Your task to perform on an android device: turn on javascript in the chrome app Image 0: 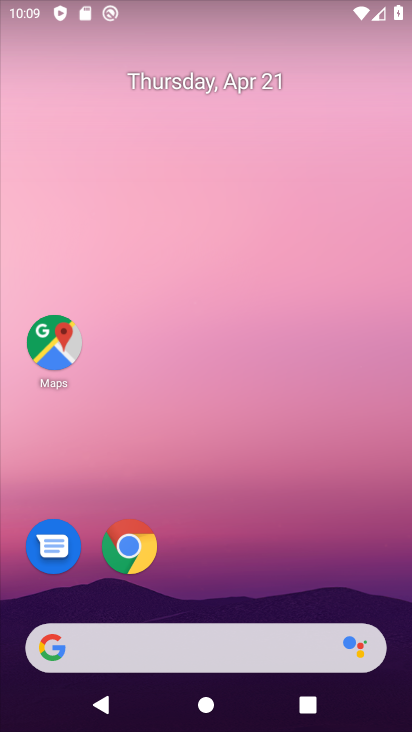
Step 0: drag from (180, 671) to (171, 70)
Your task to perform on an android device: turn on javascript in the chrome app Image 1: 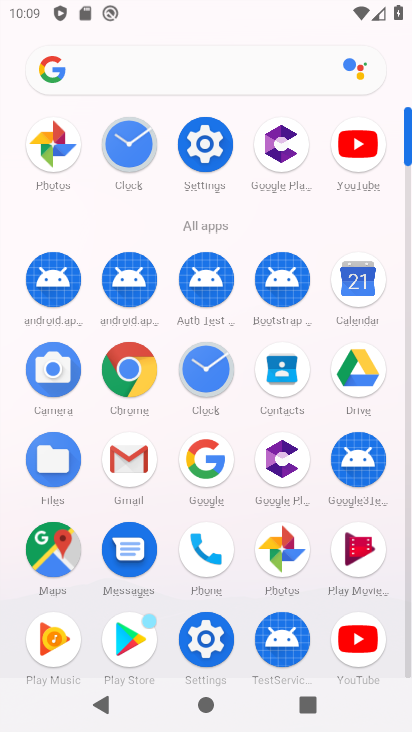
Step 1: click (132, 364)
Your task to perform on an android device: turn on javascript in the chrome app Image 2: 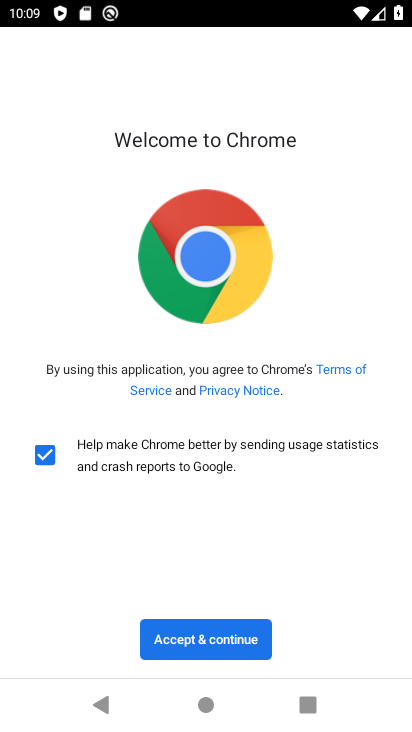
Step 2: click (211, 628)
Your task to perform on an android device: turn on javascript in the chrome app Image 3: 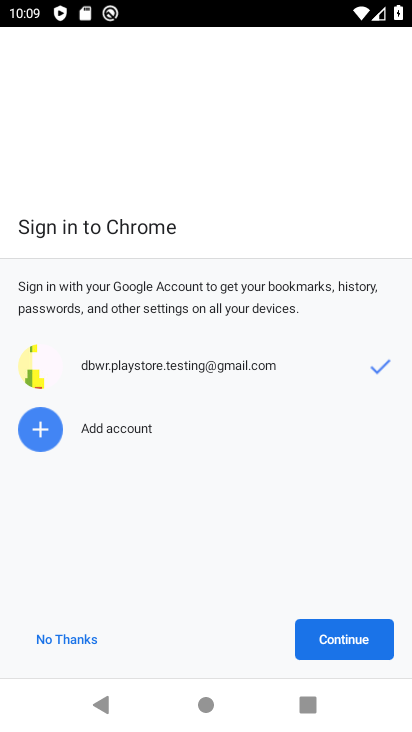
Step 3: click (320, 634)
Your task to perform on an android device: turn on javascript in the chrome app Image 4: 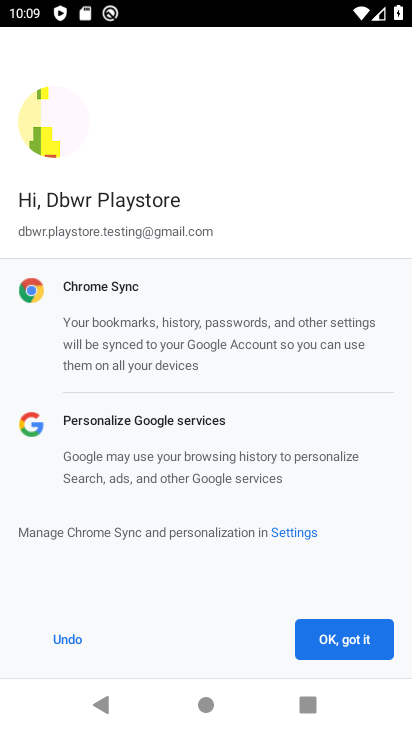
Step 4: click (320, 634)
Your task to perform on an android device: turn on javascript in the chrome app Image 5: 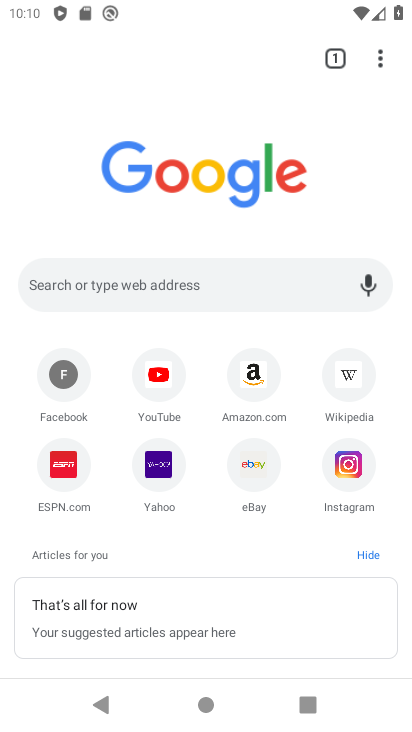
Step 5: click (383, 58)
Your task to perform on an android device: turn on javascript in the chrome app Image 6: 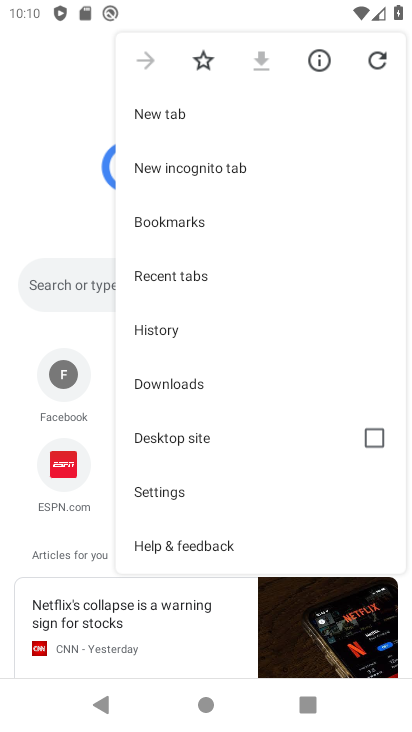
Step 6: click (184, 491)
Your task to perform on an android device: turn on javascript in the chrome app Image 7: 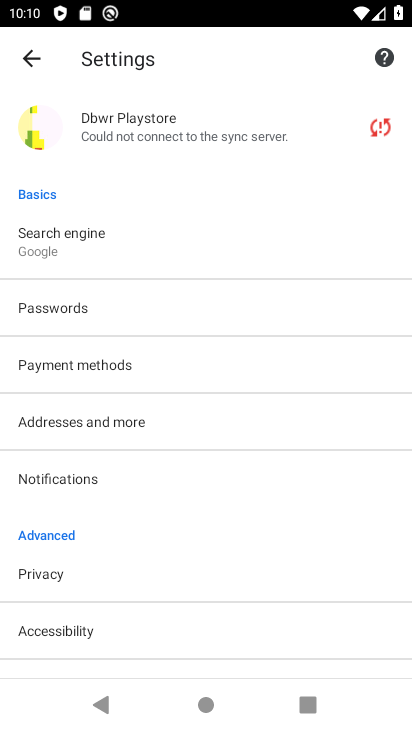
Step 7: drag from (130, 565) to (137, 442)
Your task to perform on an android device: turn on javascript in the chrome app Image 8: 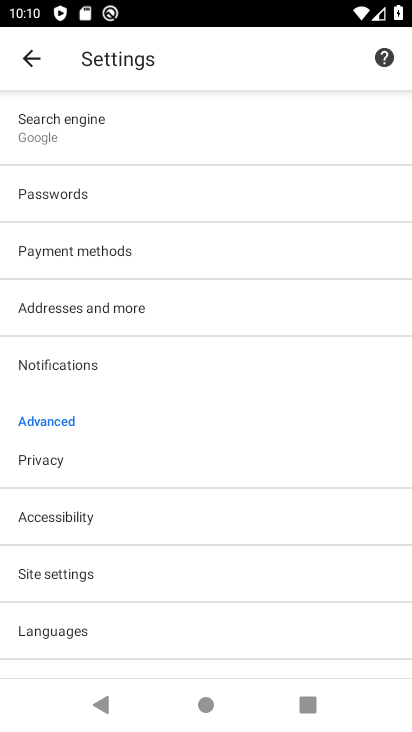
Step 8: click (55, 563)
Your task to perform on an android device: turn on javascript in the chrome app Image 9: 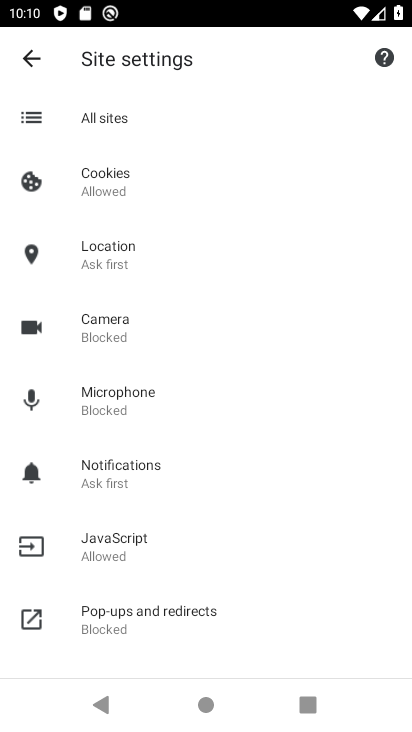
Step 9: click (95, 548)
Your task to perform on an android device: turn on javascript in the chrome app Image 10: 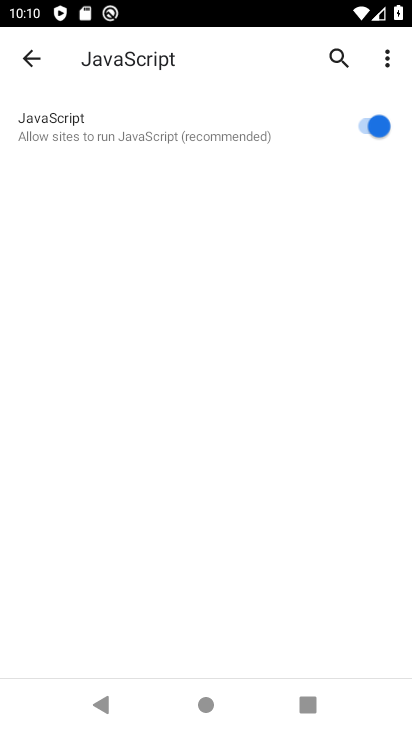
Step 10: click (331, 137)
Your task to perform on an android device: turn on javascript in the chrome app Image 11: 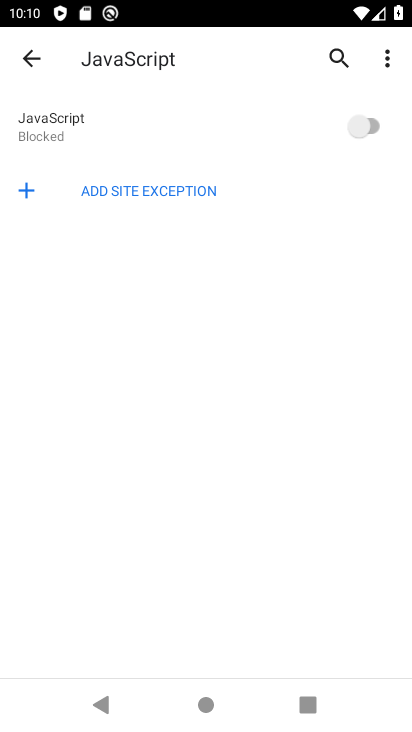
Step 11: click (339, 130)
Your task to perform on an android device: turn on javascript in the chrome app Image 12: 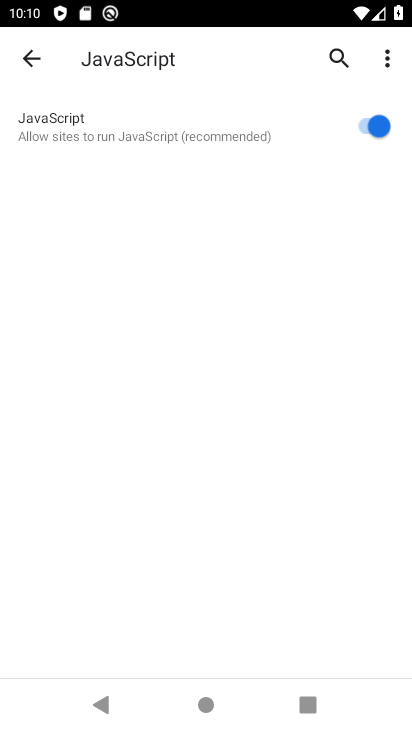
Step 12: task complete